Your task to perform on an android device: Open calendar and show me the first week of next month Image 0: 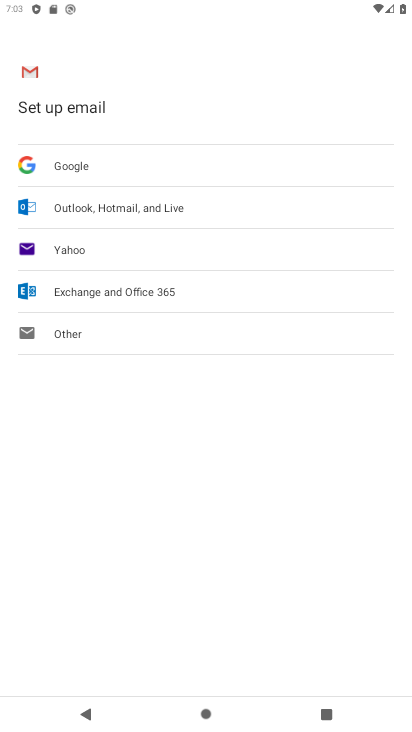
Step 0: press home button
Your task to perform on an android device: Open calendar and show me the first week of next month Image 1: 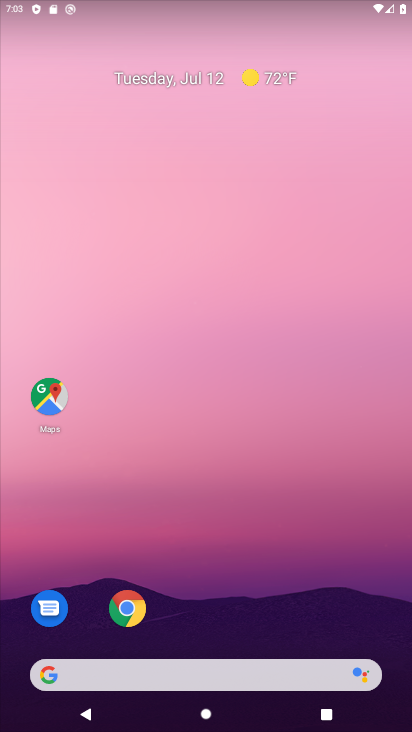
Step 1: drag from (214, 534) to (160, 126)
Your task to perform on an android device: Open calendar and show me the first week of next month Image 2: 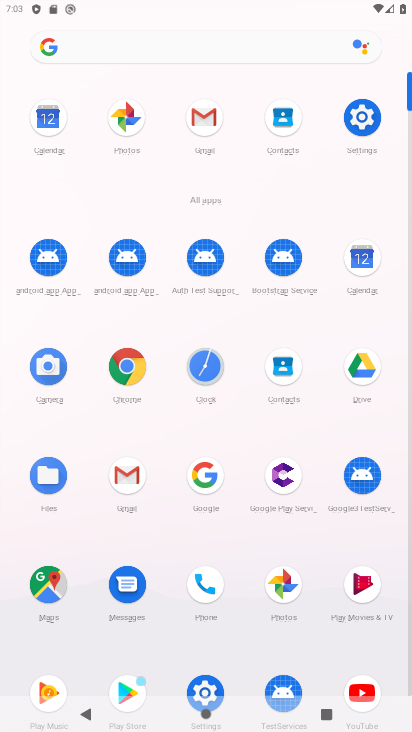
Step 2: click (363, 257)
Your task to perform on an android device: Open calendar and show me the first week of next month Image 3: 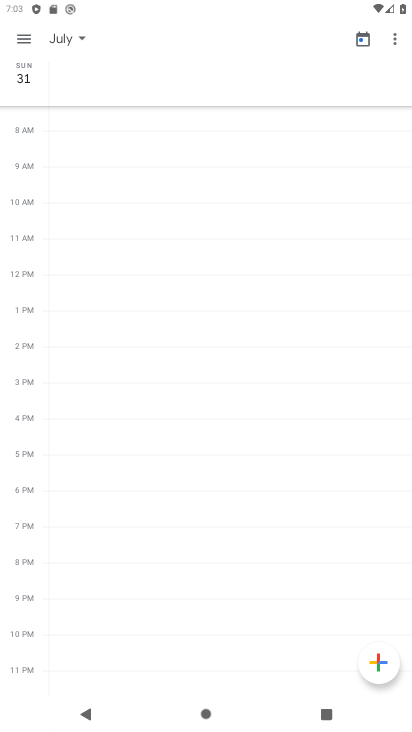
Step 3: click (14, 38)
Your task to perform on an android device: Open calendar and show me the first week of next month Image 4: 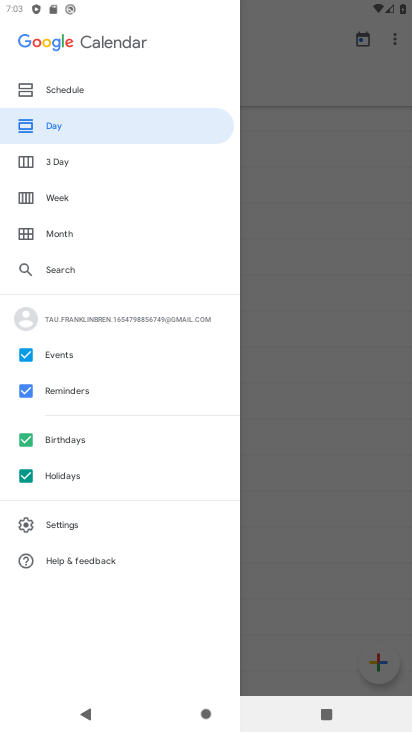
Step 4: click (58, 194)
Your task to perform on an android device: Open calendar and show me the first week of next month Image 5: 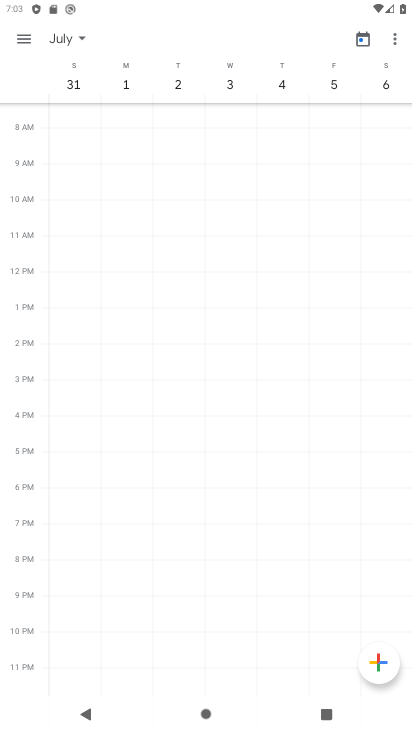
Step 5: click (82, 39)
Your task to perform on an android device: Open calendar and show me the first week of next month Image 6: 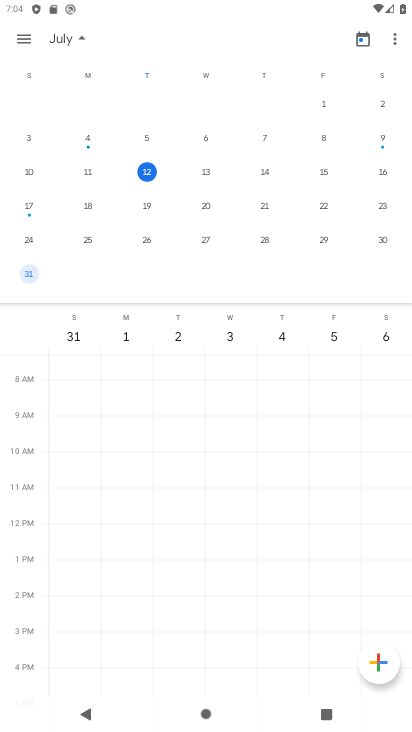
Step 6: task complete